Your task to perform on an android device: What is the news today? Image 0: 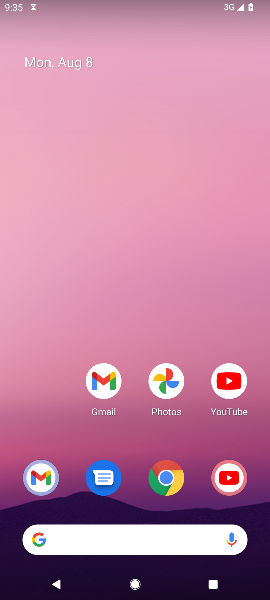
Step 0: click (100, 537)
Your task to perform on an android device: What is the news today? Image 1: 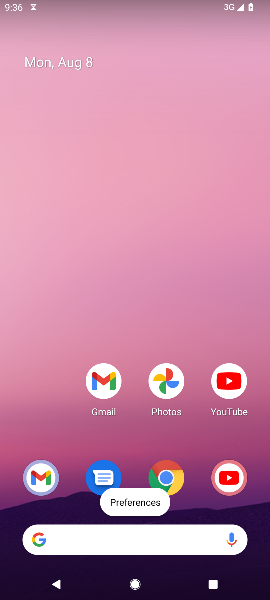
Step 1: click (100, 537)
Your task to perform on an android device: What is the news today? Image 2: 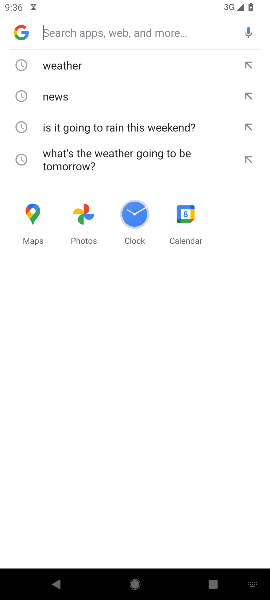
Step 2: click (56, 93)
Your task to perform on an android device: What is the news today? Image 3: 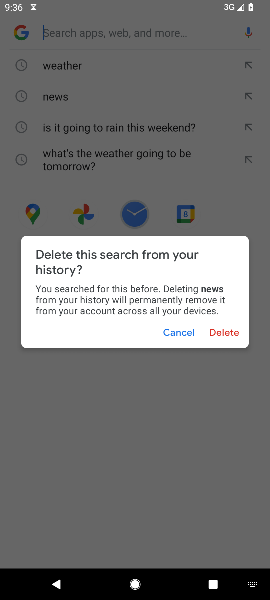
Step 3: click (192, 329)
Your task to perform on an android device: What is the news today? Image 4: 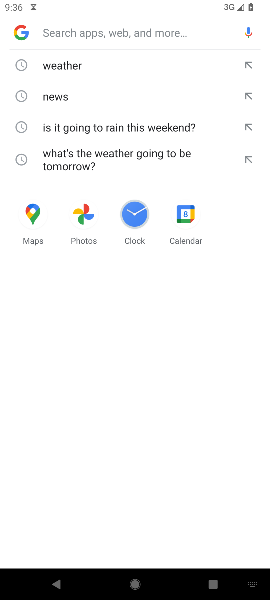
Step 4: click (81, 97)
Your task to perform on an android device: What is the news today? Image 5: 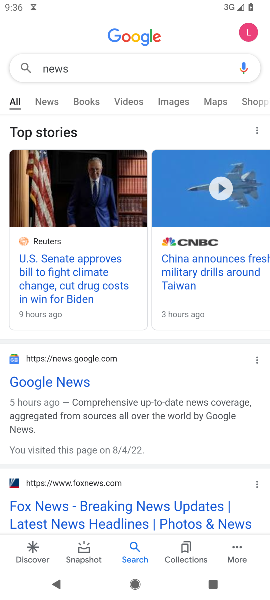
Step 5: click (38, 96)
Your task to perform on an android device: What is the news today? Image 6: 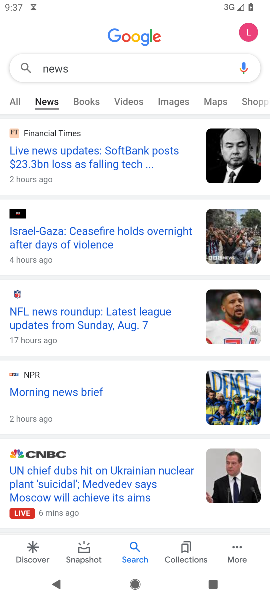
Step 6: task complete